Your task to perform on an android device: turn off notifications in google photos Image 0: 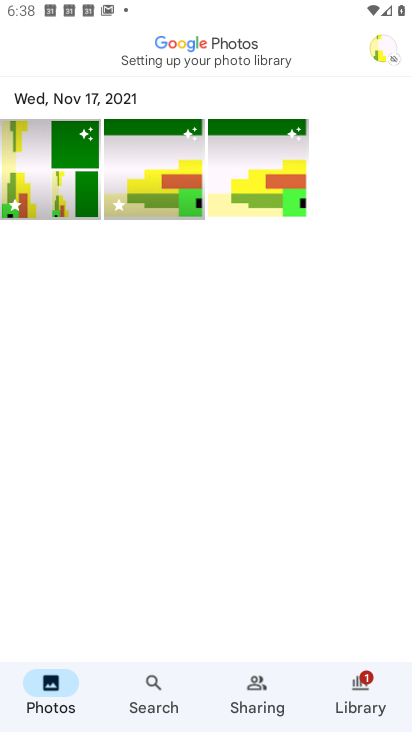
Step 0: press home button
Your task to perform on an android device: turn off notifications in google photos Image 1: 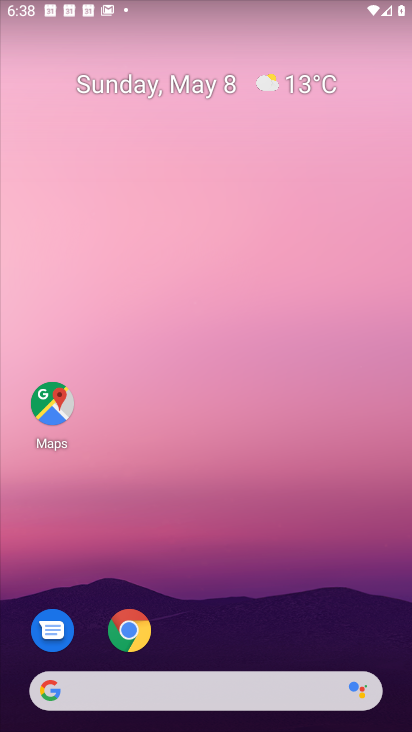
Step 1: drag from (307, 609) to (97, 12)
Your task to perform on an android device: turn off notifications in google photos Image 2: 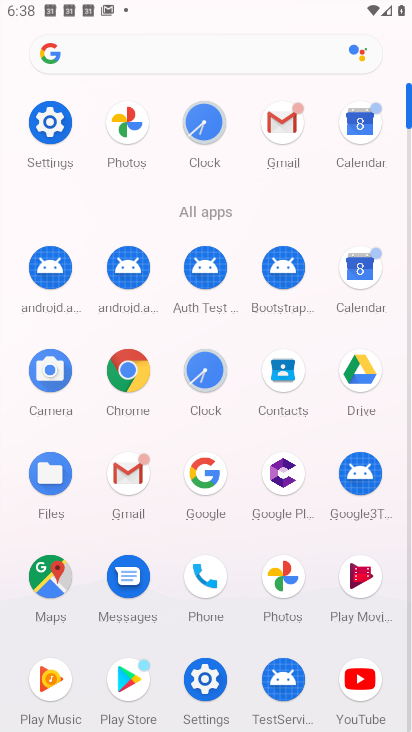
Step 2: click (123, 119)
Your task to perform on an android device: turn off notifications in google photos Image 3: 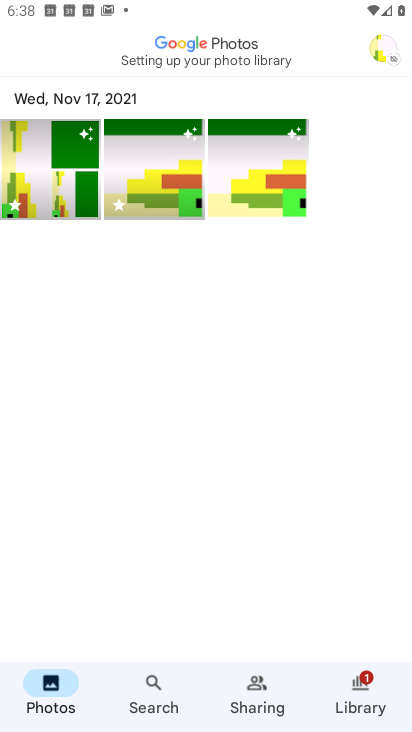
Step 3: click (389, 45)
Your task to perform on an android device: turn off notifications in google photos Image 4: 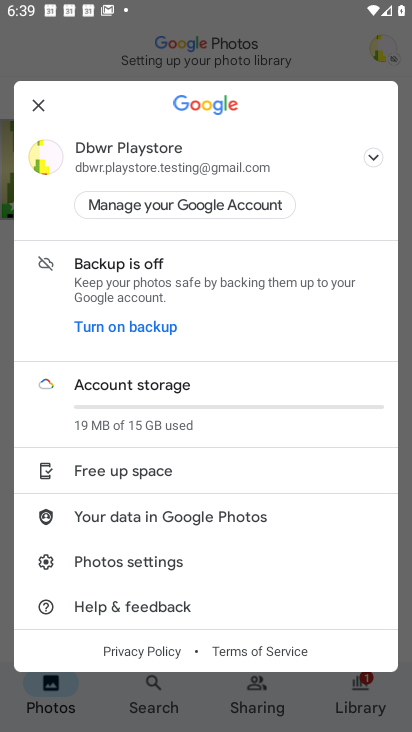
Step 4: click (147, 562)
Your task to perform on an android device: turn off notifications in google photos Image 5: 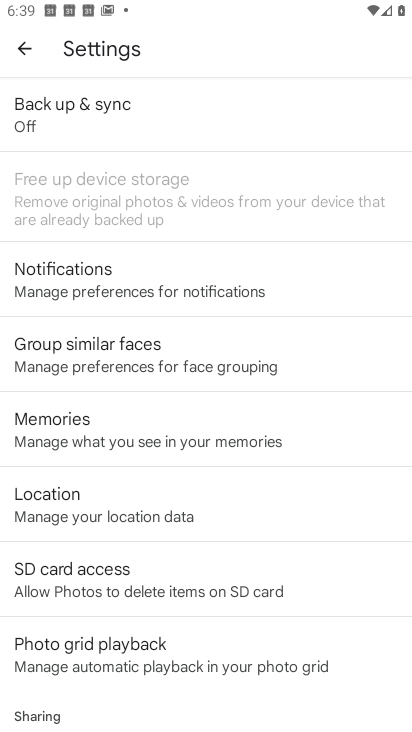
Step 5: click (57, 267)
Your task to perform on an android device: turn off notifications in google photos Image 6: 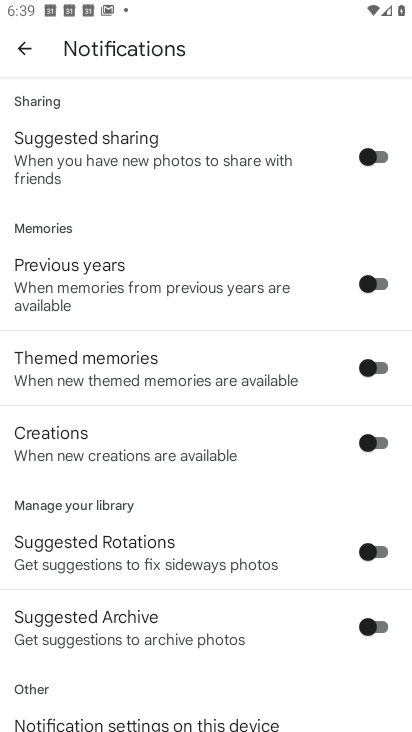
Step 6: drag from (202, 579) to (202, 227)
Your task to perform on an android device: turn off notifications in google photos Image 7: 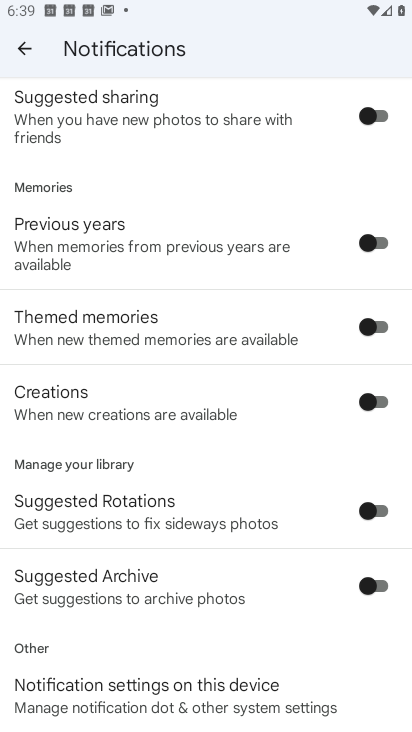
Step 7: click (184, 690)
Your task to perform on an android device: turn off notifications in google photos Image 8: 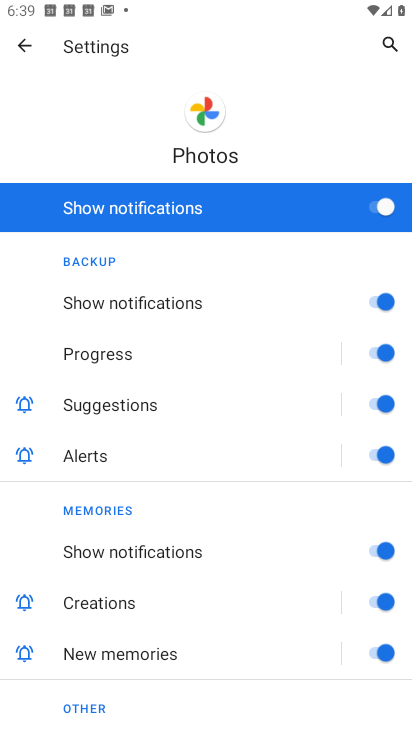
Step 8: click (378, 200)
Your task to perform on an android device: turn off notifications in google photos Image 9: 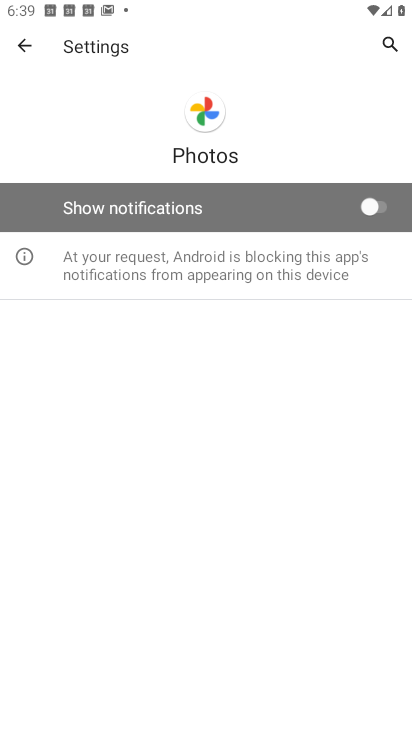
Step 9: task complete